Your task to perform on an android device: delete browsing data in the chrome app Image 0: 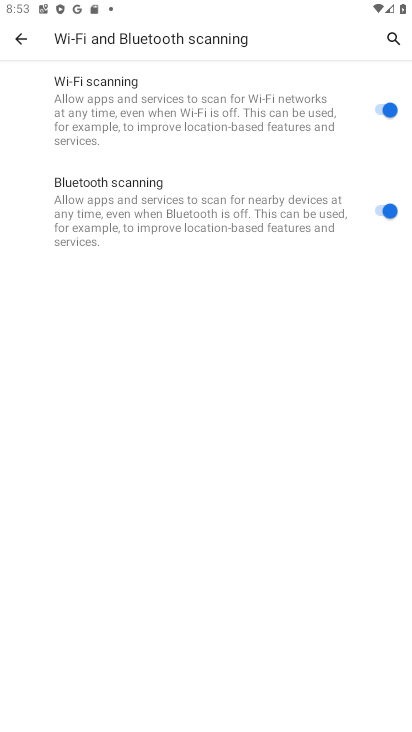
Step 0: press back button
Your task to perform on an android device: delete browsing data in the chrome app Image 1: 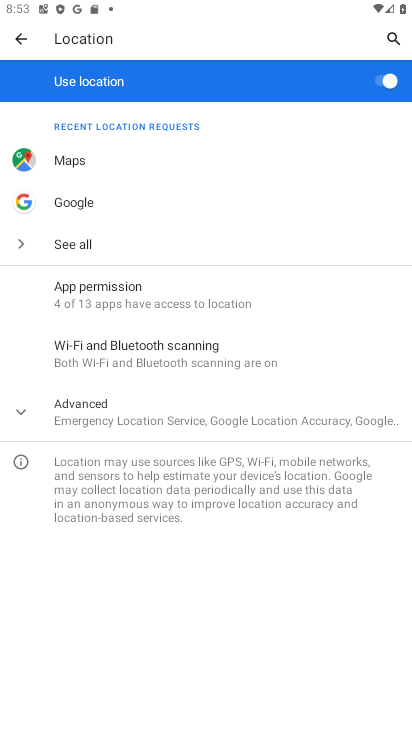
Step 1: press back button
Your task to perform on an android device: delete browsing data in the chrome app Image 2: 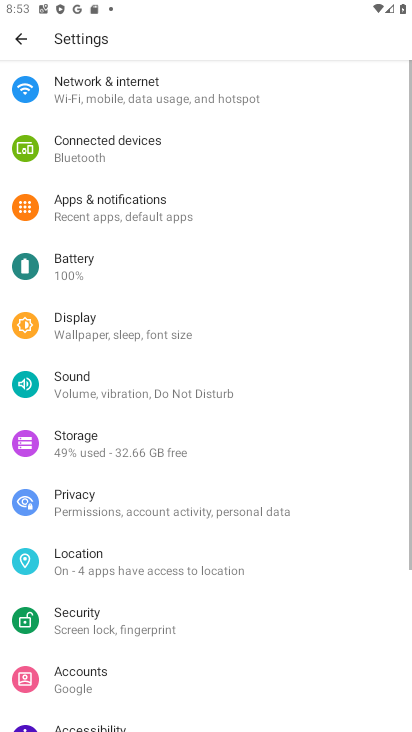
Step 2: press back button
Your task to perform on an android device: delete browsing data in the chrome app Image 3: 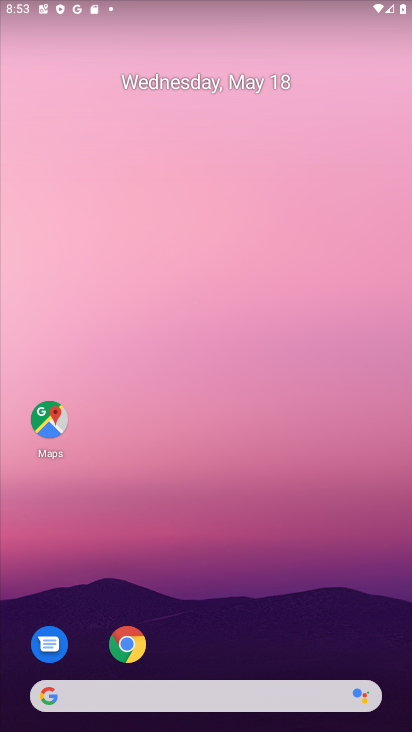
Step 3: click (127, 644)
Your task to perform on an android device: delete browsing data in the chrome app Image 4: 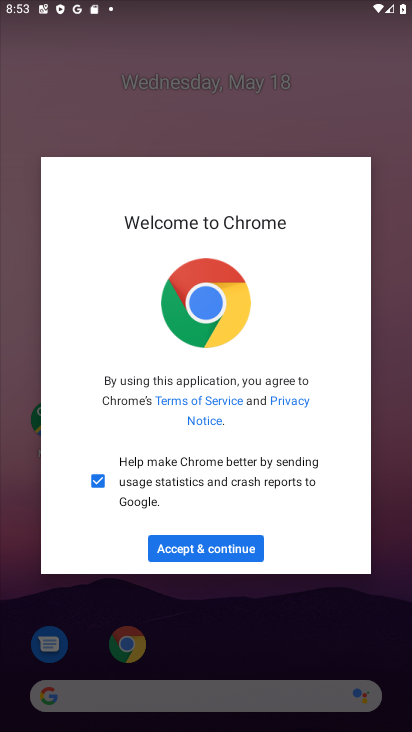
Step 4: click (200, 553)
Your task to perform on an android device: delete browsing data in the chrome app Image 5: 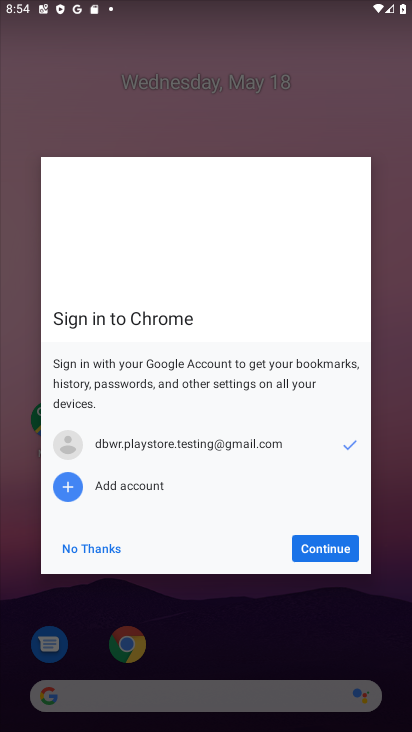
Step 5: click (324, 550)
Your task to perform on an android device: delete browsing data in the chrome app Image 6: 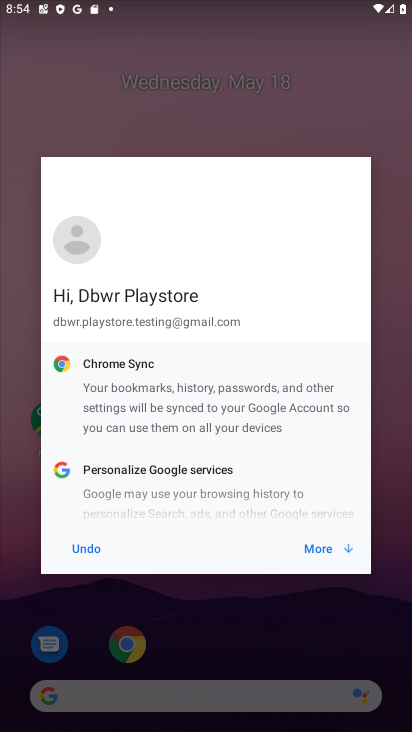
Step 6: click (324, 550)
Your task to perform on an android device: delete browsing data in the chrome app Image 7: 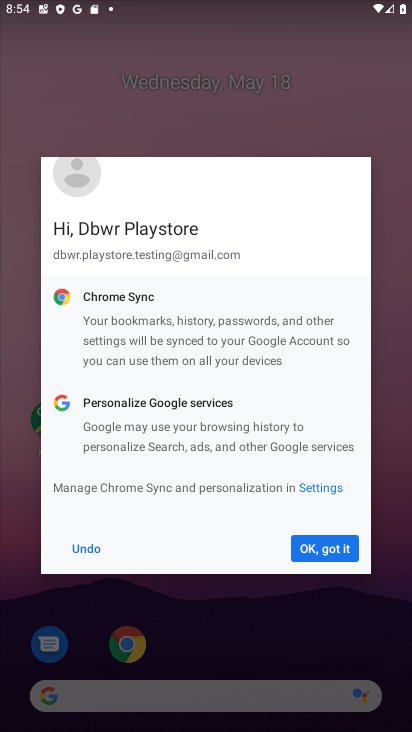
Step 7: click (324, 550)
Your task to perform on an android device: delete browsing data in the chrome app Image 8: 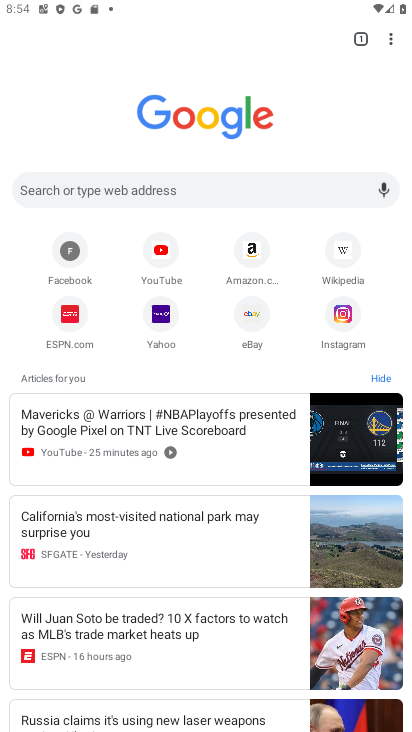
Step 8: click (390, 39)
Your task to perform on an android device: delete browsing data in the chrome app Image 9: 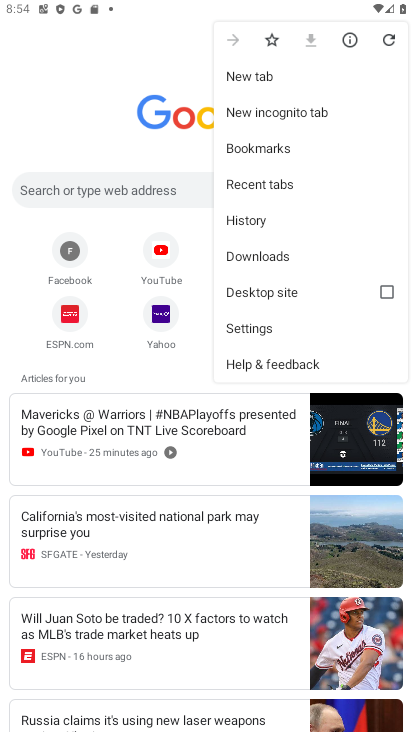
Step 9: click (256, 326)
Your task to perform on an android device: delete browsing data in the chrome app Image 10: 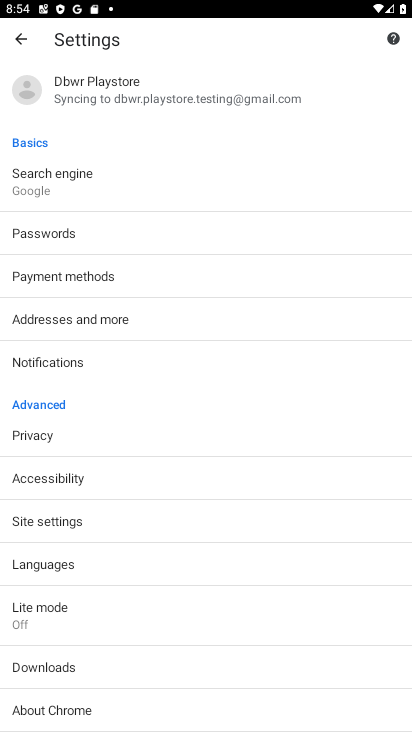
Step 10: click (42, 440)
Your task to perform on an android device: delete browsing data in the chrome app Image 11: 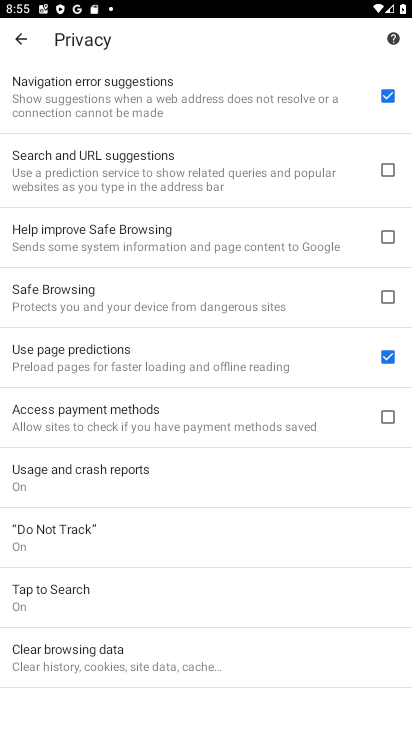
Step 11: click (87, 651)
Your task to perform on an android device: delete browsing data in the chrome app Image 12: 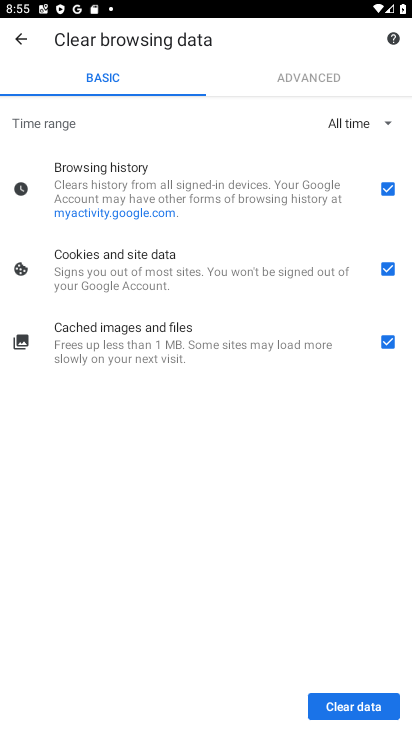
Step 12: click (318, 699)
Your task to perform on an android device: delete browsing data in the chrome app Image 13: 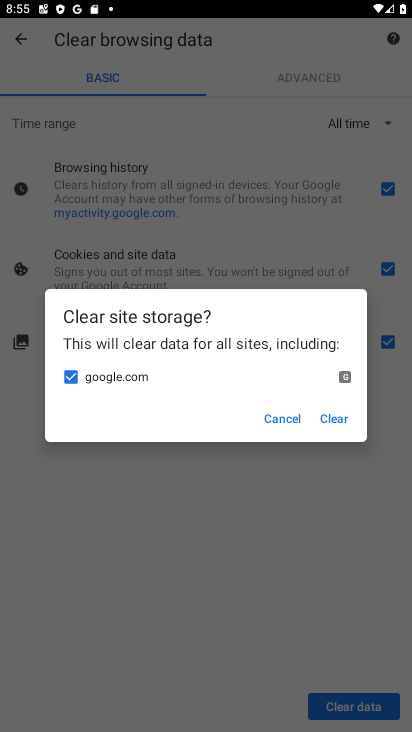
Step 13: click (336, 414)
Your task to perform on an android device: delete browsing data in the chrome app Image 14: 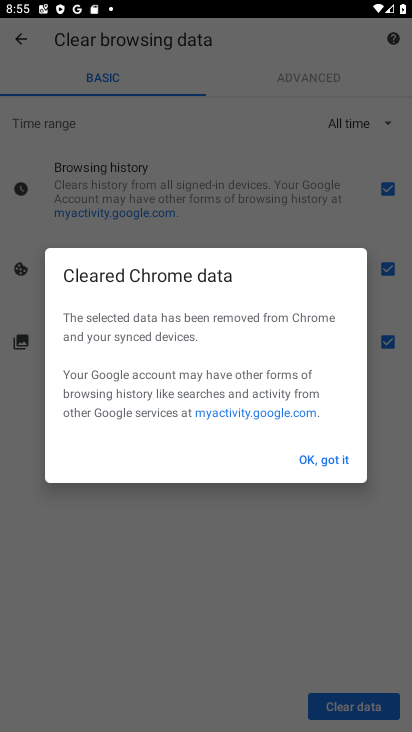
Step 14: click (335, 455)
Your task to perform on an android device: delete browsing data in the chrome app Image 15: 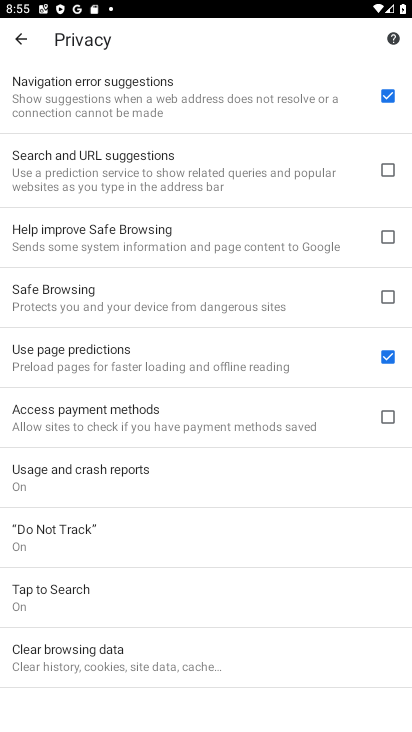
Step 15: task complete